Your task to perform on an android device: What is the news today? Image 0: 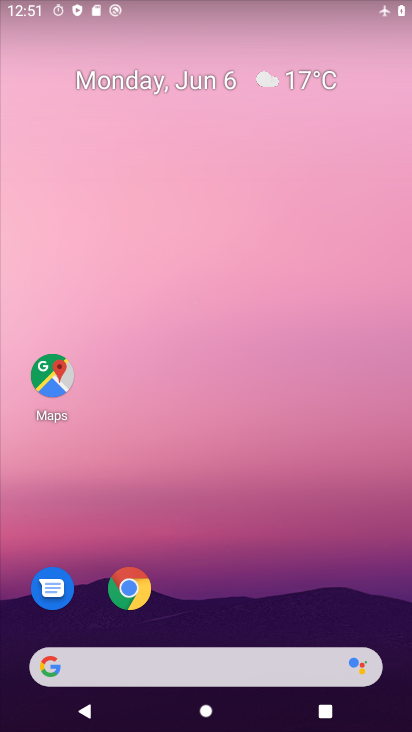
Step 0: drag from (245, 582) to (314, 118)
Your task to perform on an android device: What is the news today? Image 1: 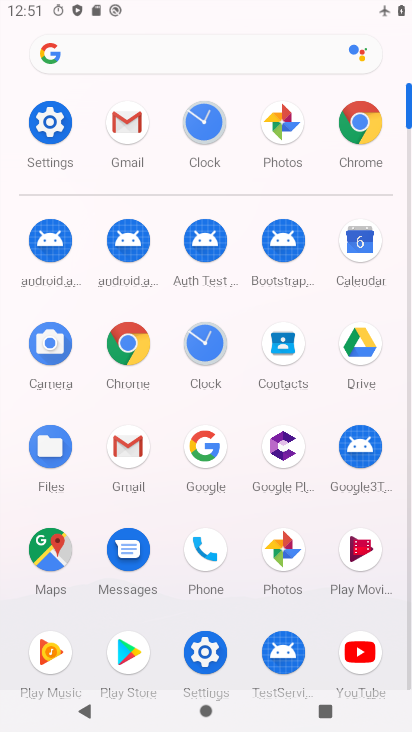
Step 1: click (124, 339)
Your task to perform on an android device: What is the news today? Image 2: 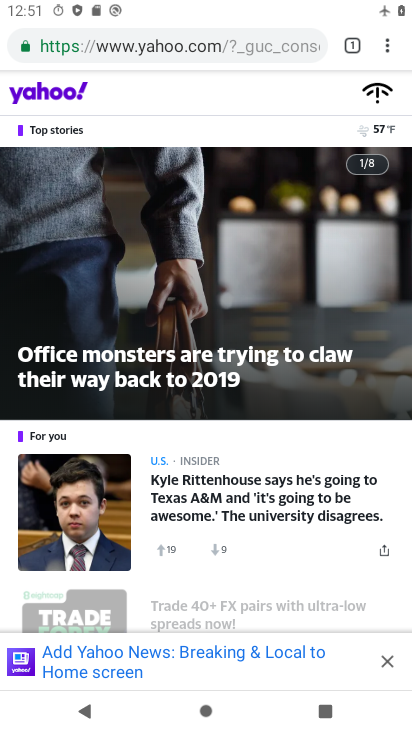
Step 2: click (235, 59)
Your task to perform on an android device: What is the news today? Image 3: 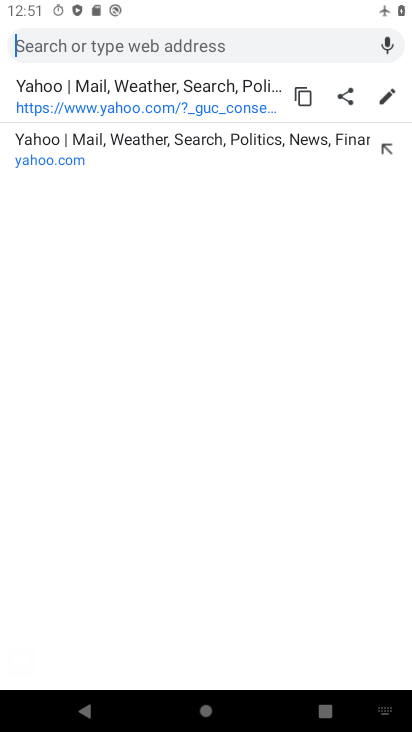
Step 3: type "news"
Your task to perform on an android device: What is the news today? Image 4: 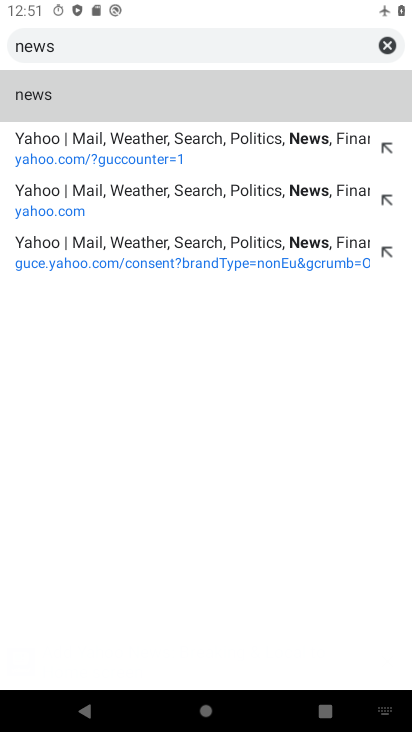
Step 4: click (39, 87)
Your task to perform on an android device: What is the news today? Image 5: 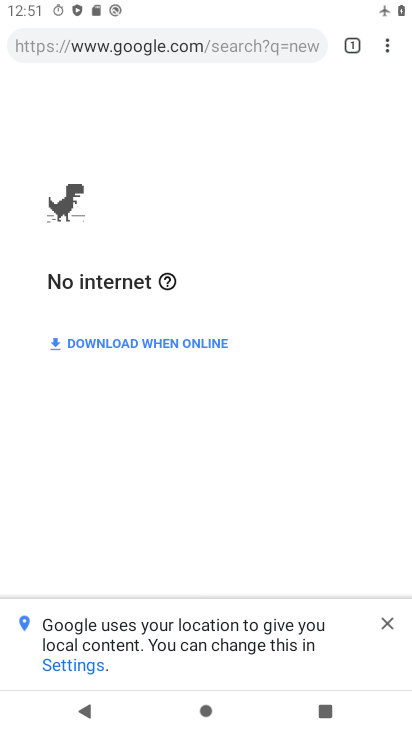
Step 5: task complete